Your task to perform on an android device: turn on priority inbox in the gmail app Image 0: 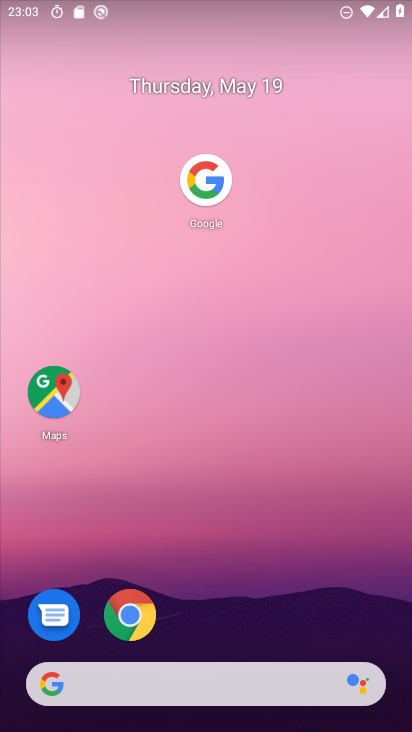
Step 0: drag from (250, 575) to (190, 84)
Your task to perform on an android device: turn on priority inbox in the gmail app Image 1: 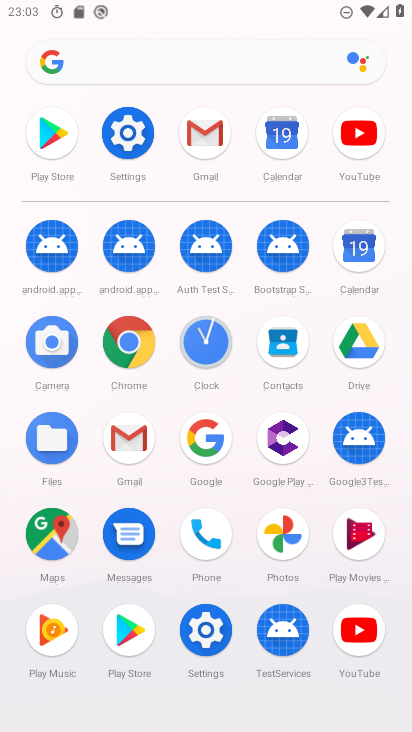
Step 1: click (128, 437)
Your task to perform on an android device: turn on priority inbox in the gmail app Image 2: 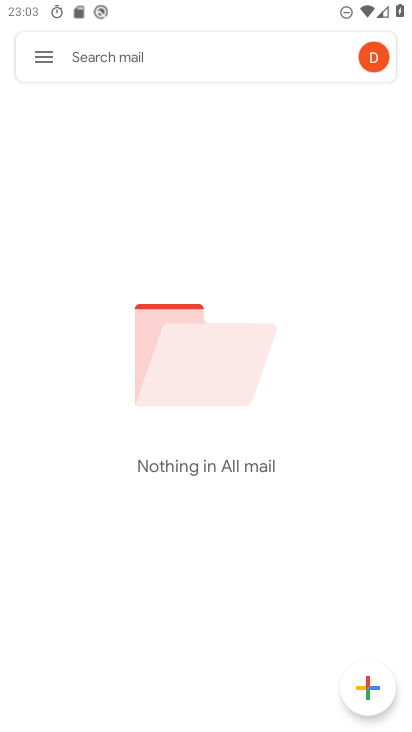
Step 2: click (55, 54)
Your task to perform on an android device: turn on priority inbox in the gmail app Image 3: 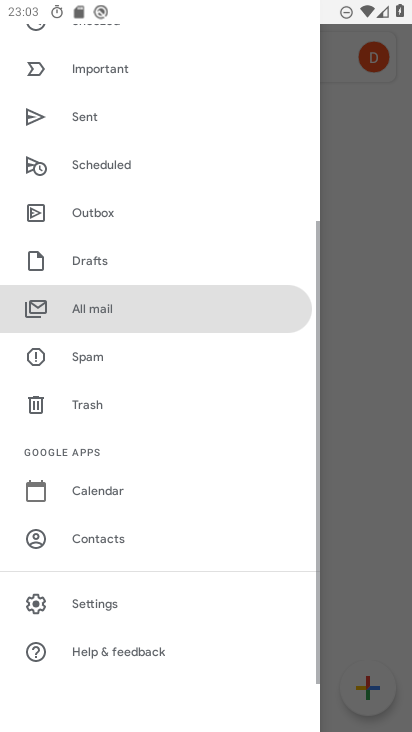
Step 3: click (113, 595)
Your task to perform on an android device: turn on priority inbox in the gmail app Image 4: 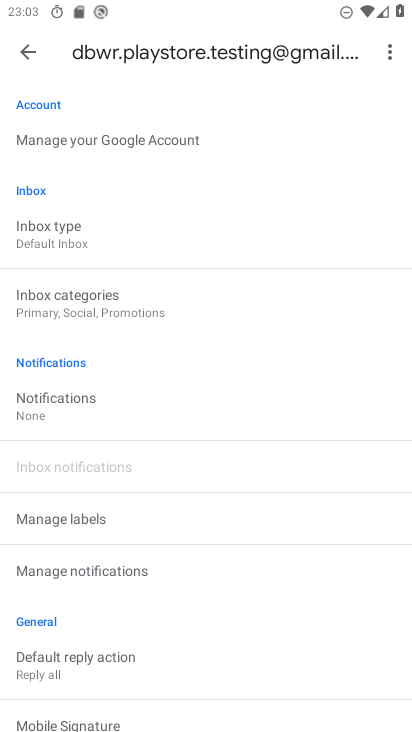
Step 4: click (81, 214)
Your task to perform on an android device: turn on priority inbox in the gmail app Image 5: 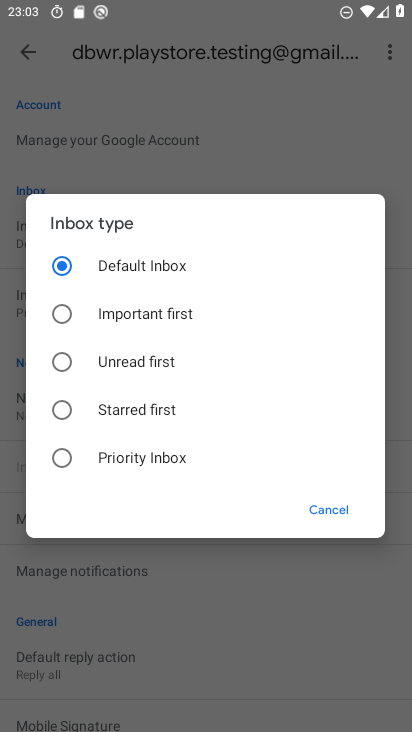
Step 5: click (67, 466)
Your task to perform on an android device: turn on priority inbox in the gmail app Image 6: 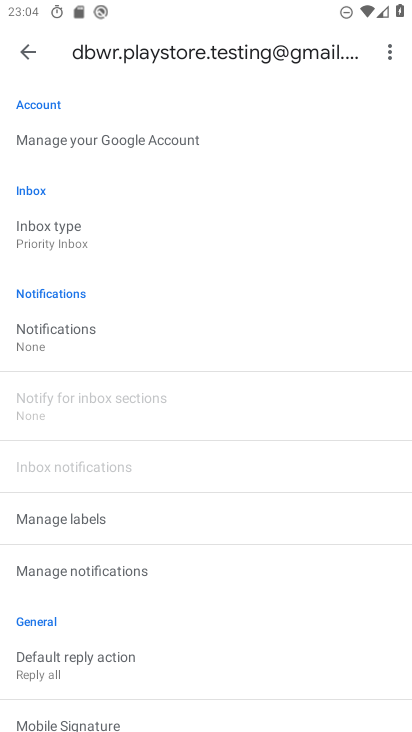
Step 6: task complete